Your task to perform on an android device: open app "Google Duo" Image 0: 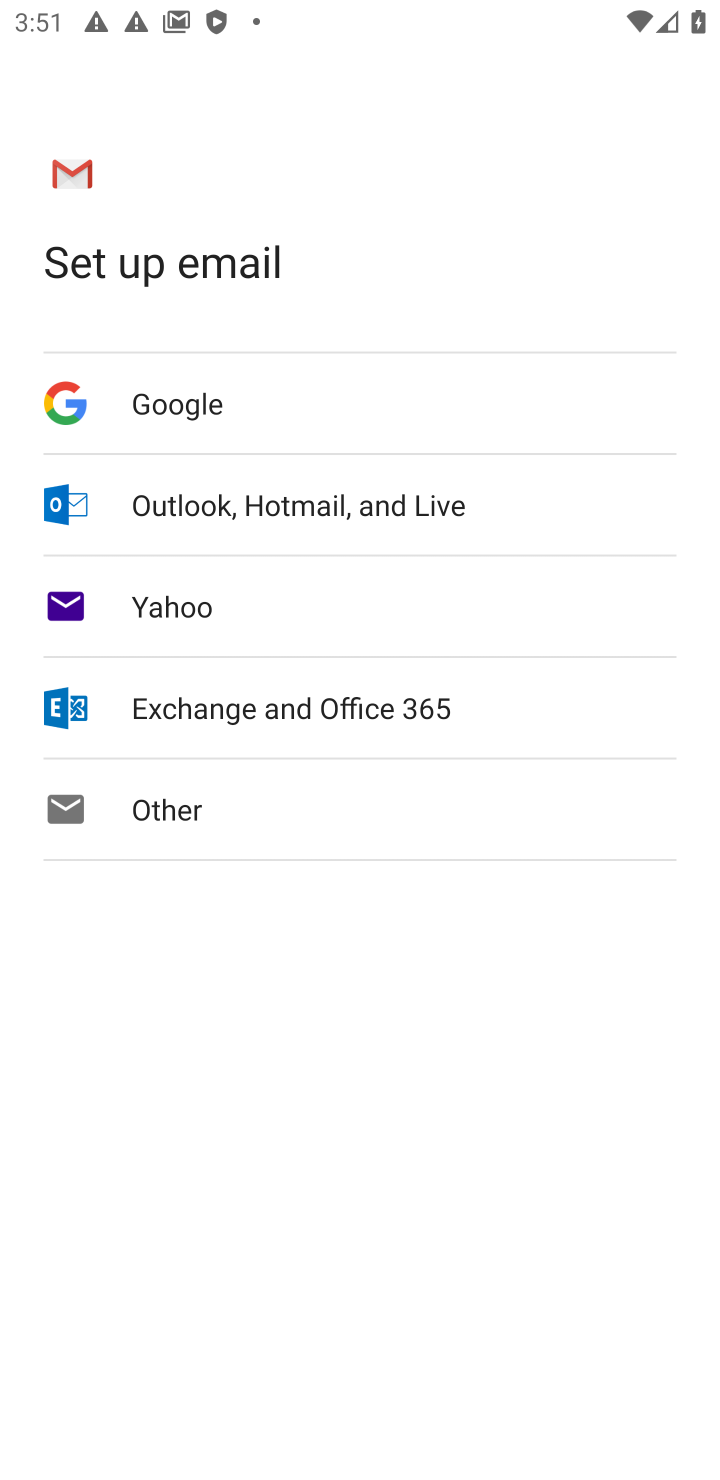
Step 0: press home button
Your task to perform on an android device: open app "Google Duo" Image 1: 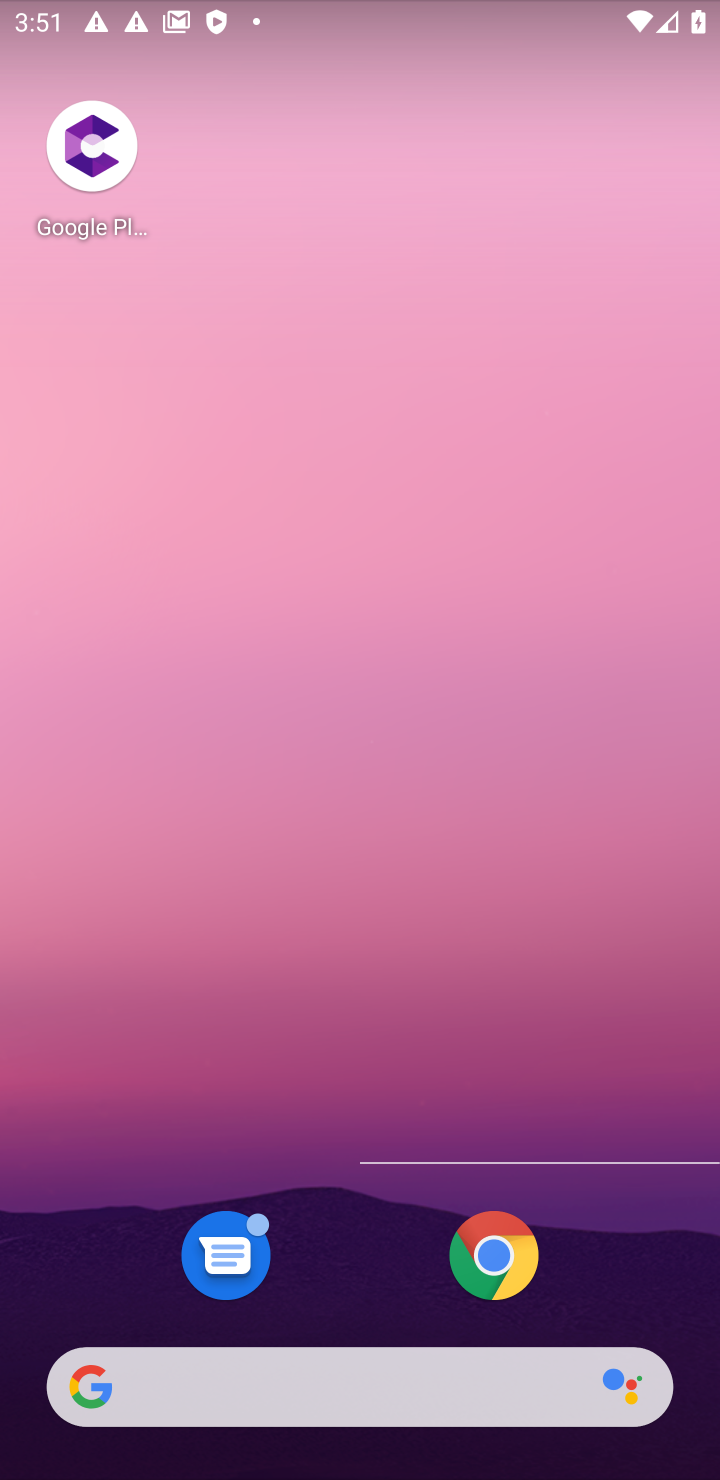
Step 1: drag from (345, 1336) to (309, 341)
Your task to perform on an android device: open app "Google Duo" Image 2: 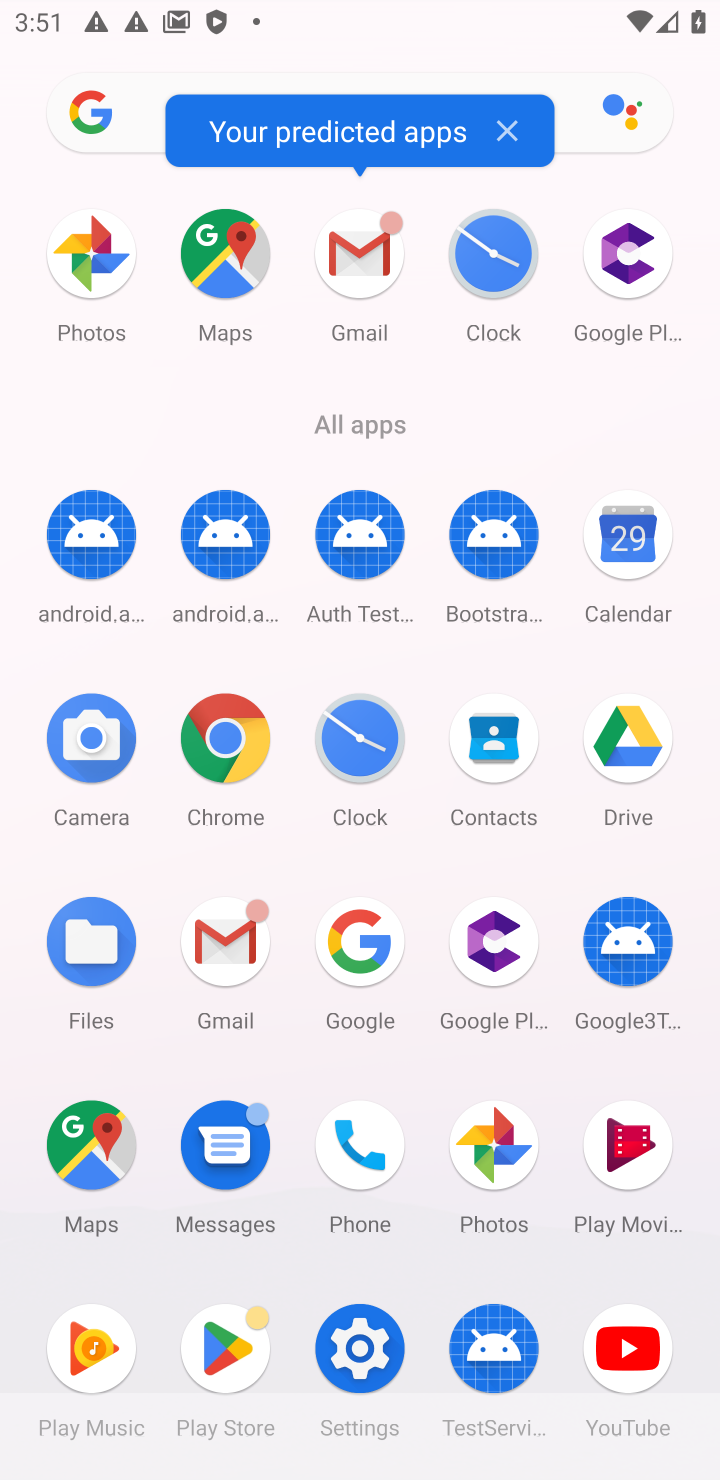
Step 2: click (215, 1345)
Your task to perform on an android device: open app "Google Duo" Image 3: 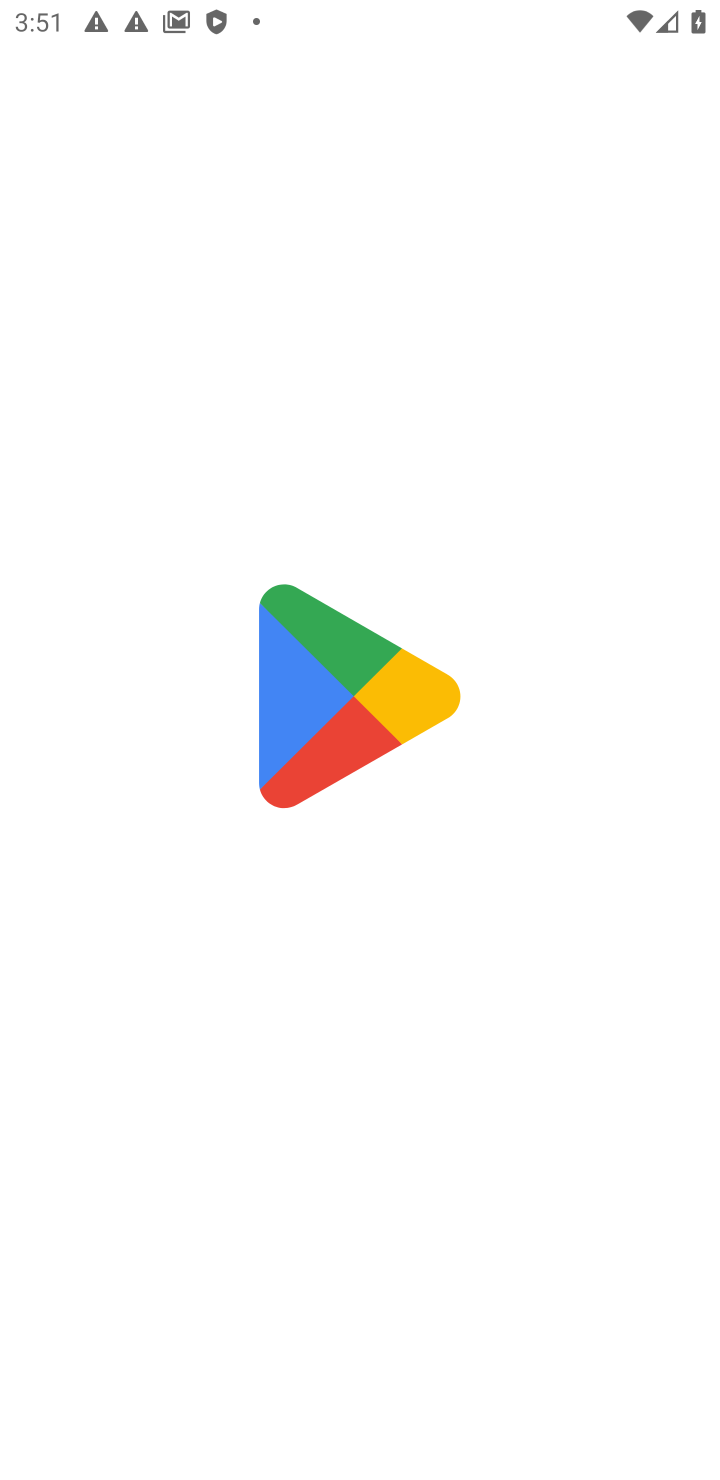
Step 3: click (233, 1353)
Your task to perform on an android device: open app "Google Duo" Image 4: 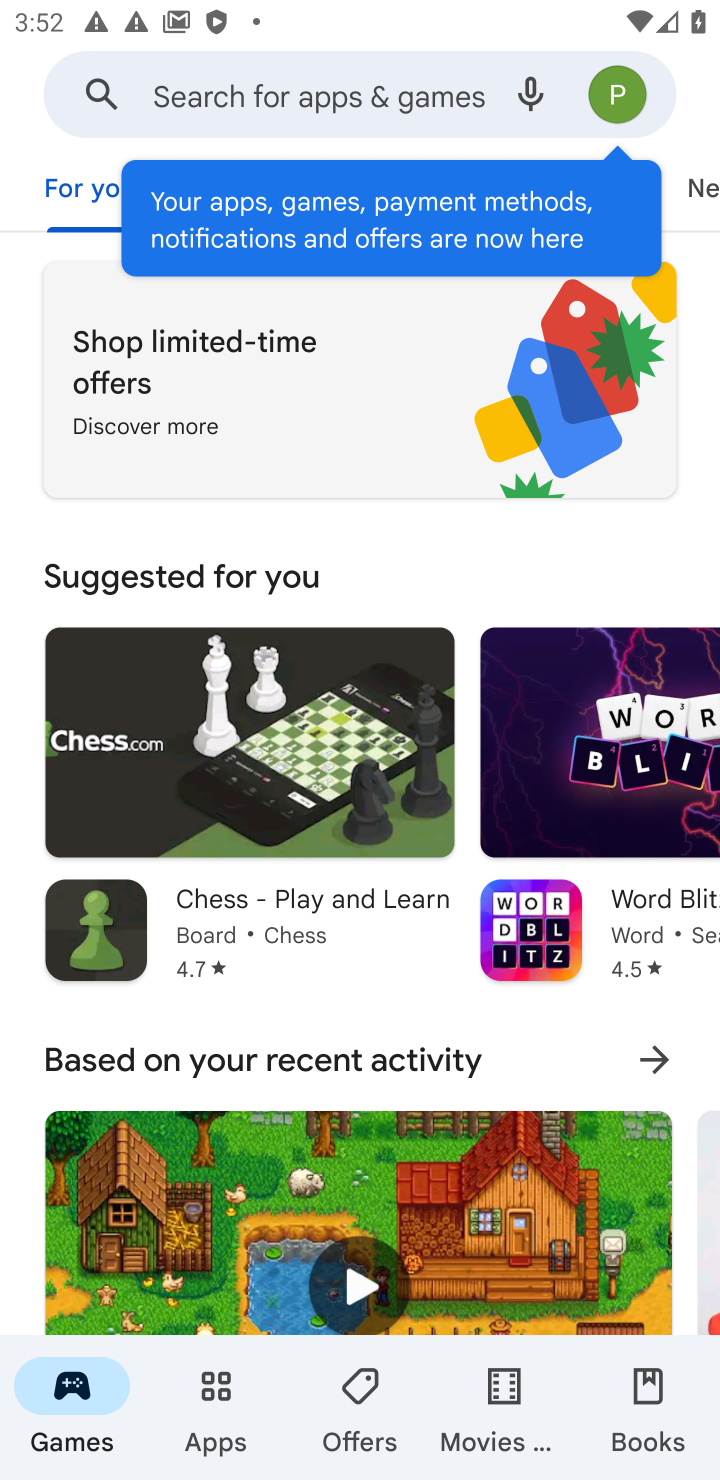
Step 4: click (303, 92)
Your task to perform on an android device: open app "Google Duo" Image 5: 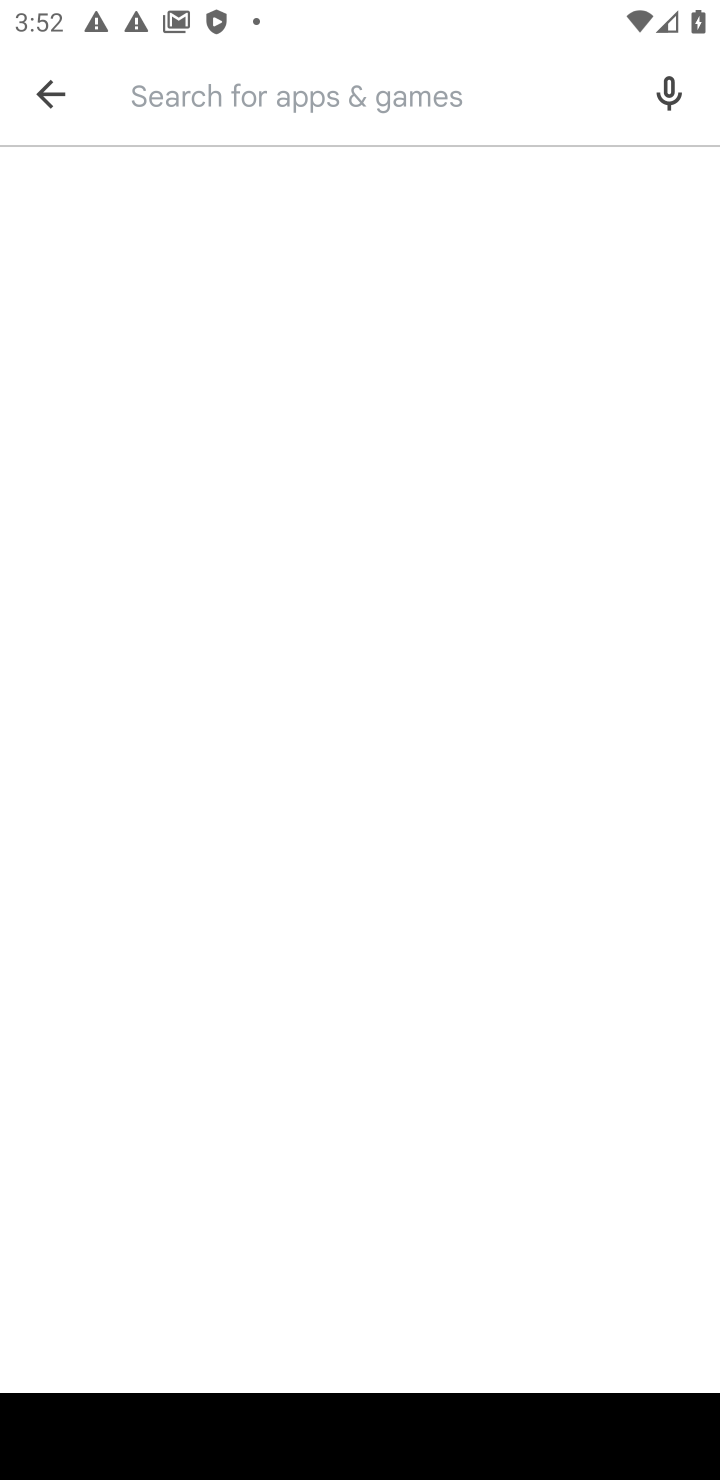
Step 5: type "Google Duo"
Your task to perform on an android device: open app "Google Duo" Image 6: 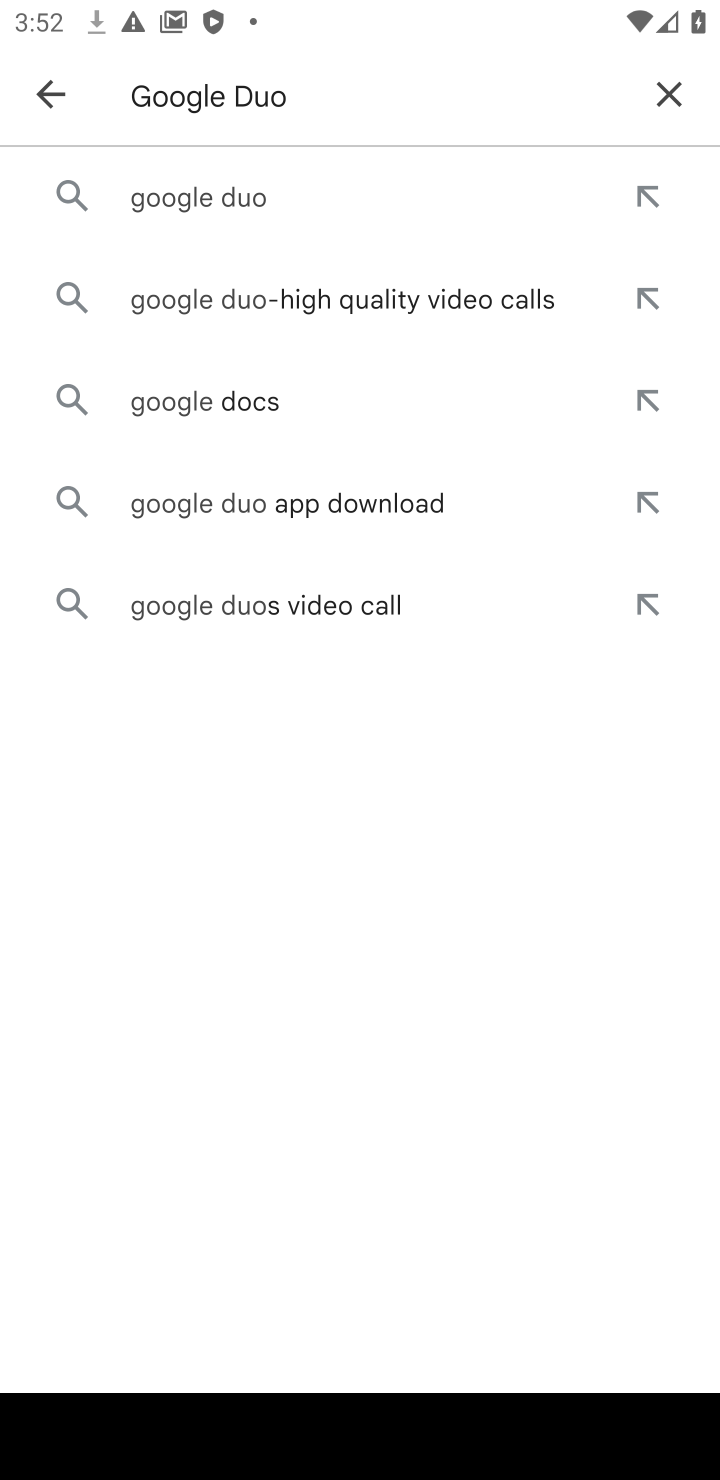
Step 6: click (186, 196)
Your task to perform on an android device: open app "Google Duo" Image 7: 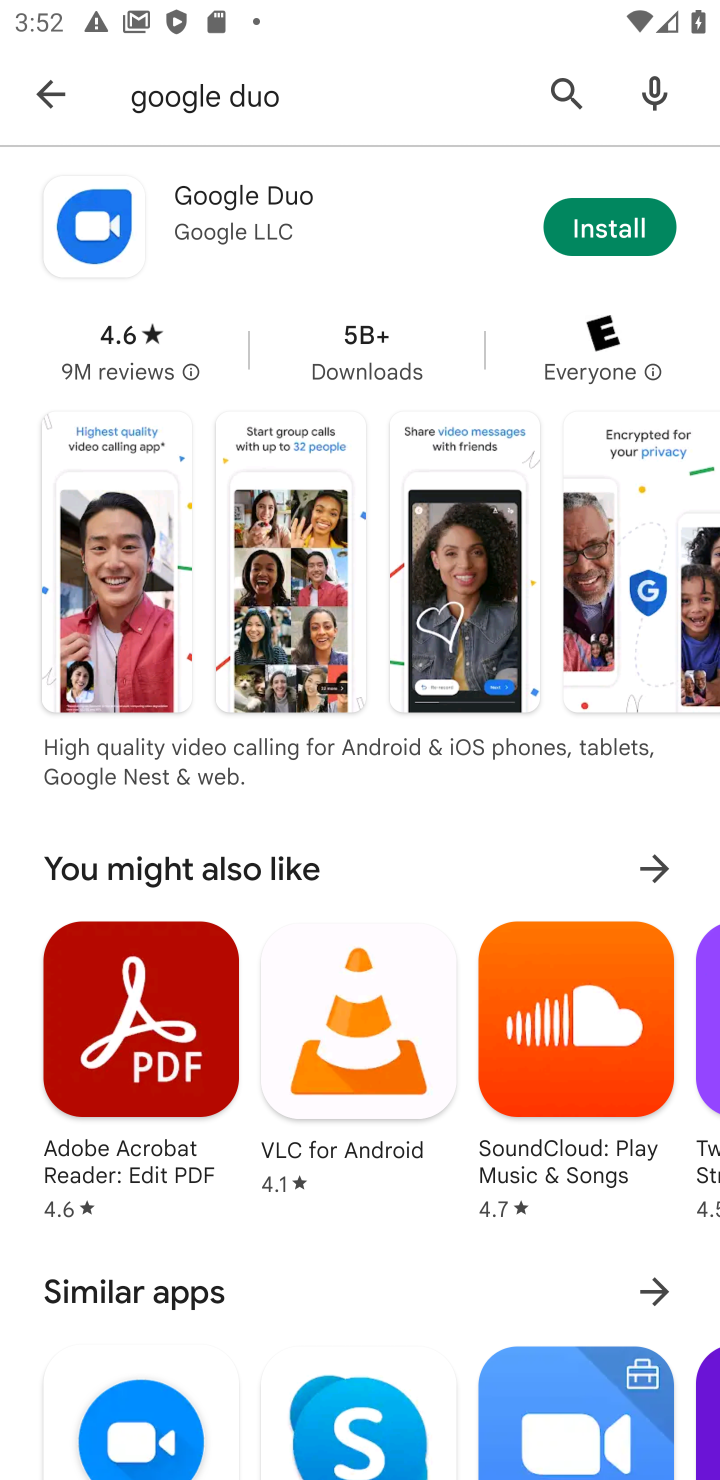
Step 7: click (572, 222)
Your task to perform on an android device: open app "Google Duo" Image 8: 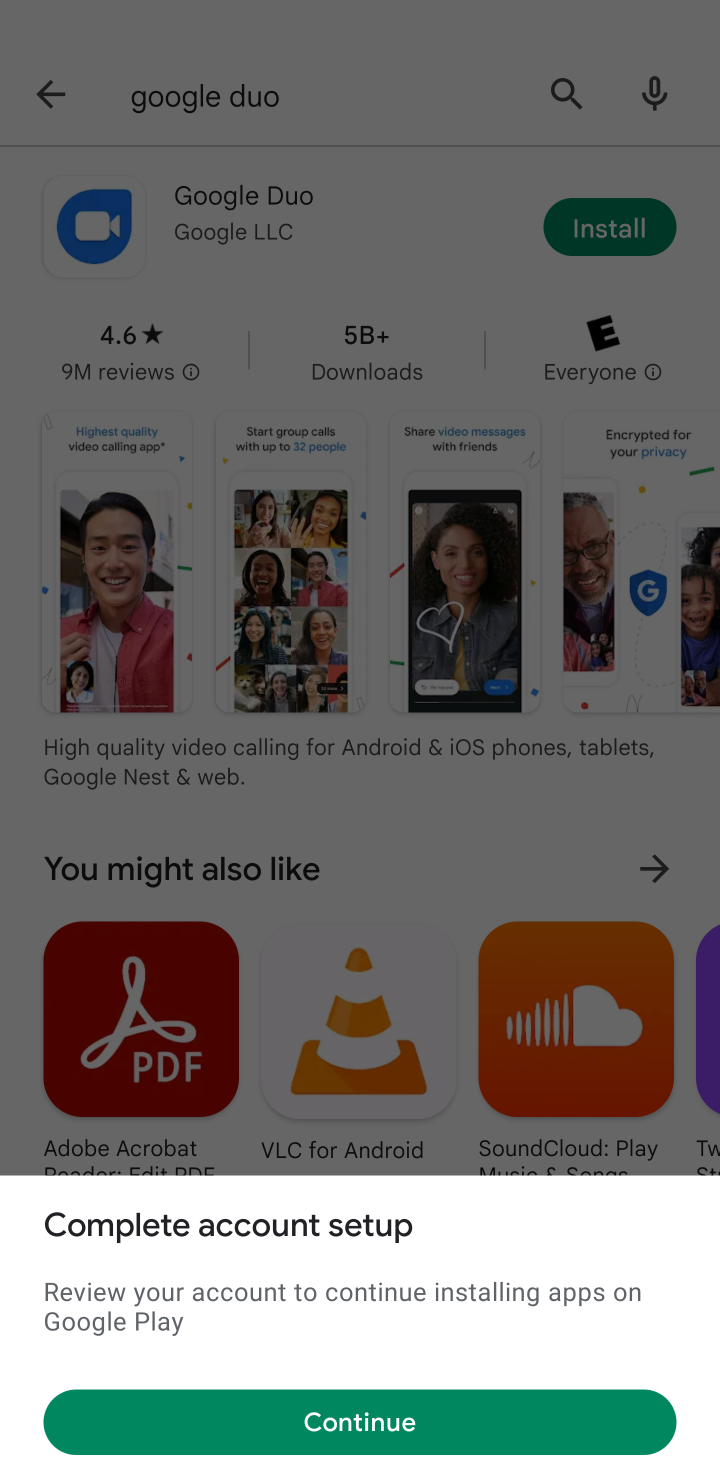
Step 8: task complete